Your task to perform on an android device: toggle wifi Image 0: 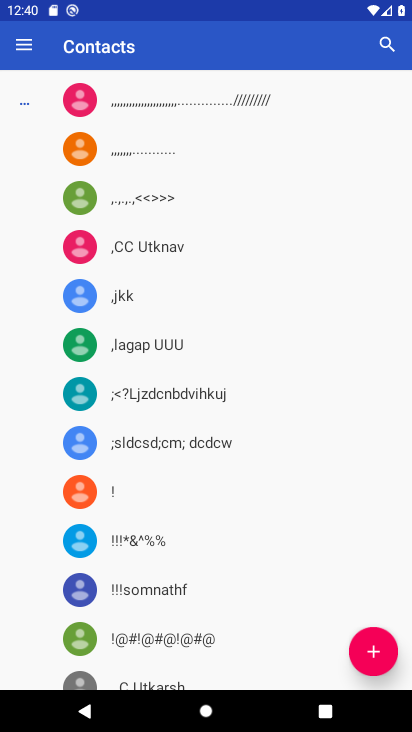
Step 0: press home button
Your task to perform on an android device: toggle wifi Image 1: 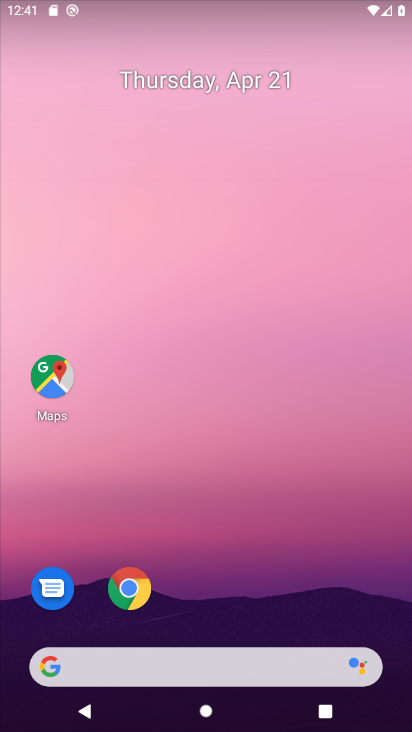
Step 1: drag from (192, 10) to (200, 578)
Your task to perform on an android device: toggle wifi Image 2: 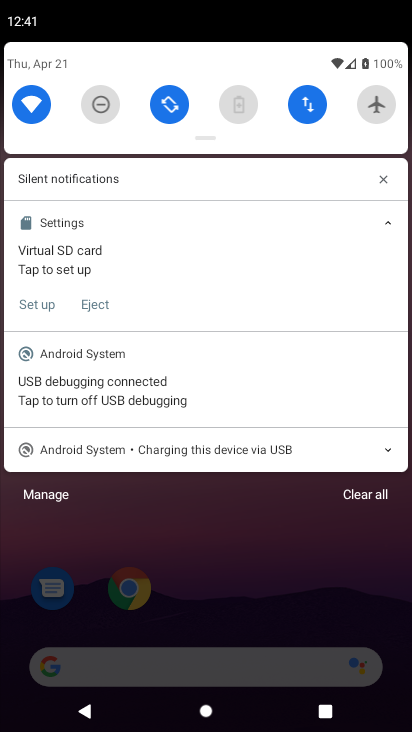
Step 2: click (28, 104)
Your task to perform on an android device: toggle wifi Image 3: 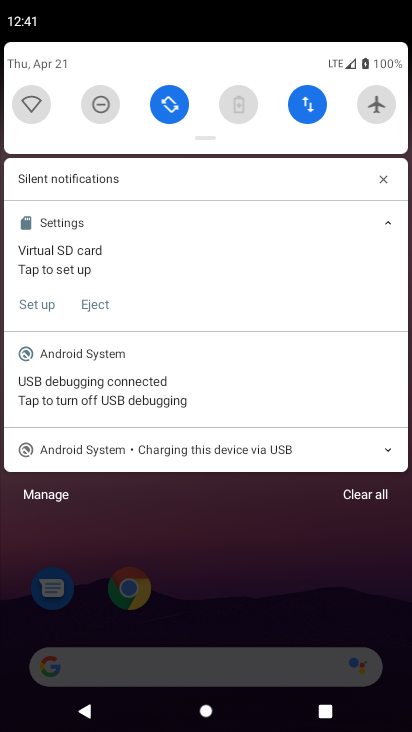
Step 3: task complete